Your task to perform on an android device: open a bookmark in the chrome app Image 0: 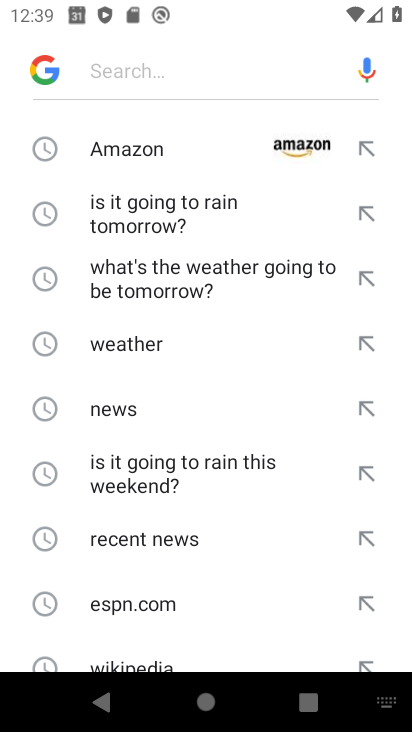
Step 0: click (117, 74)
Your task to perform on an android device: open a bookmark in the chrome app Image 1: 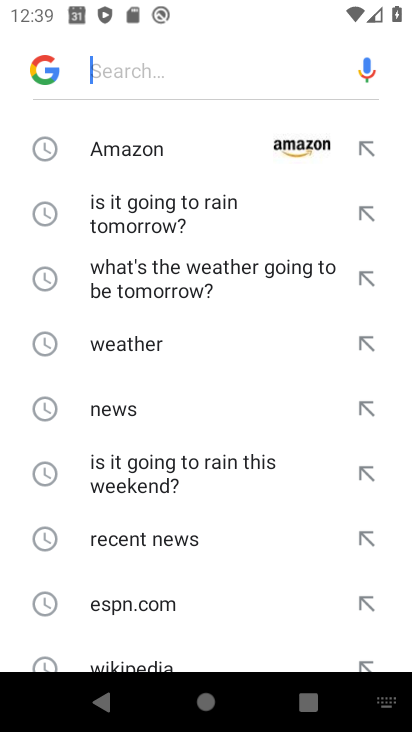
Step 1: press home button
Your task to perform on an android device: open a bookmark in the chrome app Image 2: 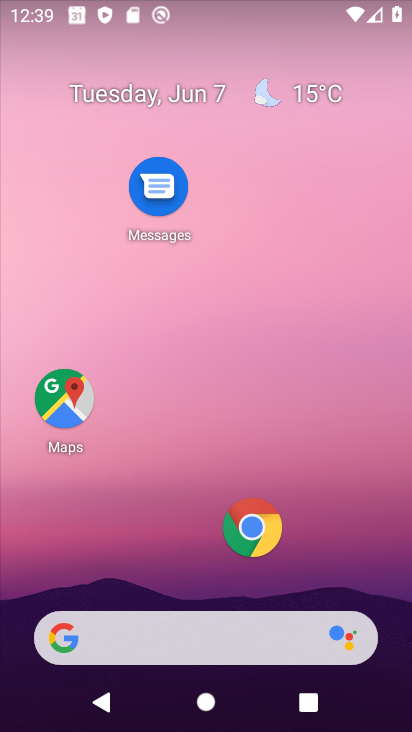
Step 2: click (245, 533)
Your task to perform on an android device: open a bookmark in the chrome app Image 3: 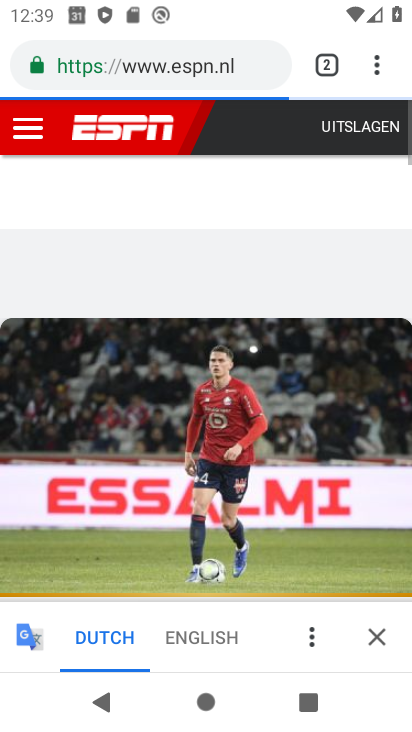
Step 3: click (382, 62)
Your task to perform on an android device: open a bookmark in the chrome app Image 4: 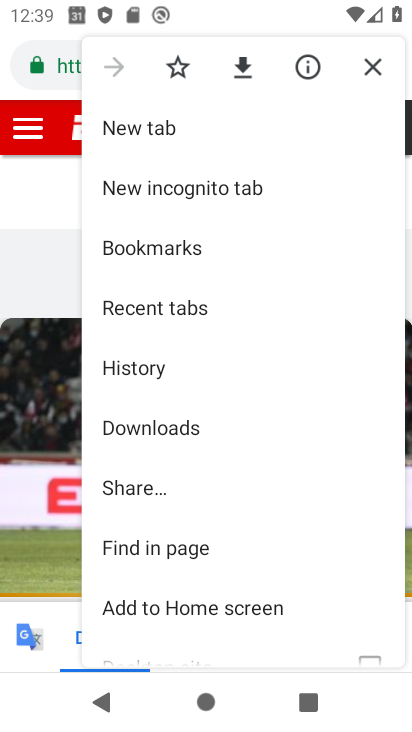
Step 4: click (162, 244)
Your task to perform on an android device: open a bookmark in the chrome app Image 5: 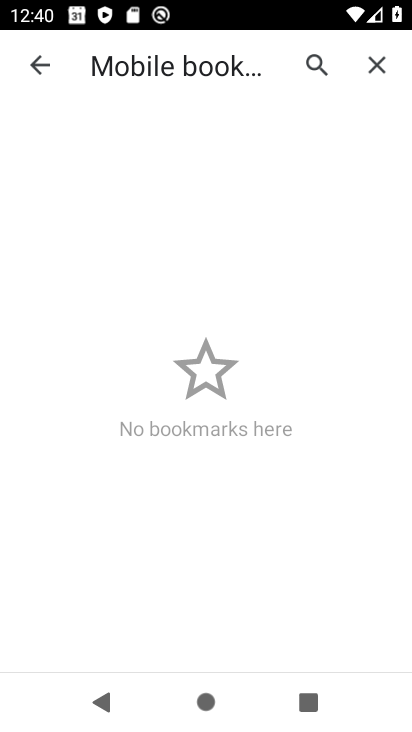
Step 5: task complete